Your task to perform on an android device: change the clock style Image 0: 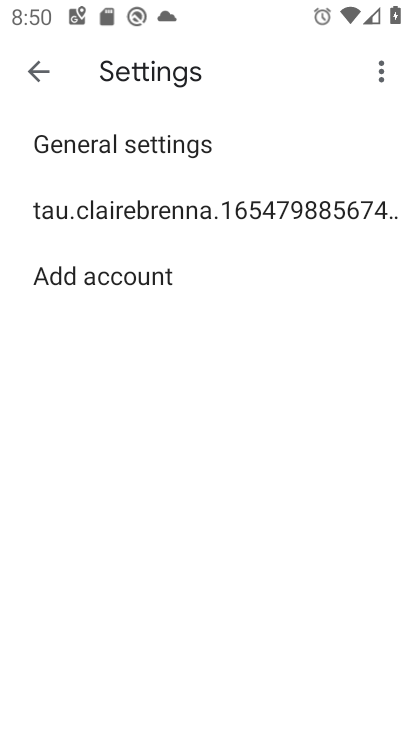
Step 0: press home button
Your task to perform on an android device: change the clock style Image 1: 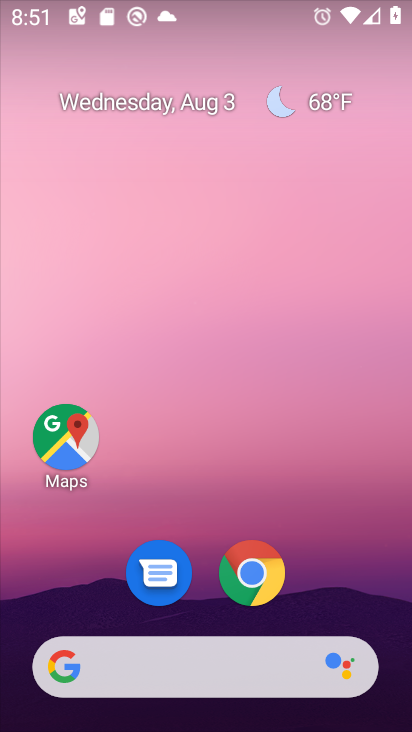
Step 1: drag from (371, 637) to (343, 21)
Your task to perform on an android device: change the clock style Image 2: 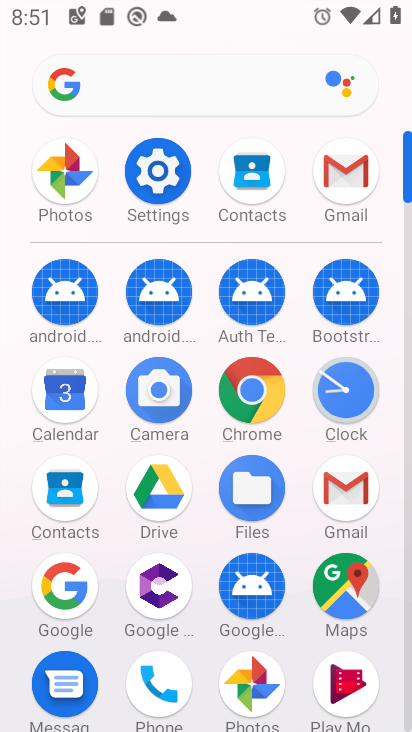
Step 2: click (344, 395)
Your task to perform on an android device: change the clock style Image 3: 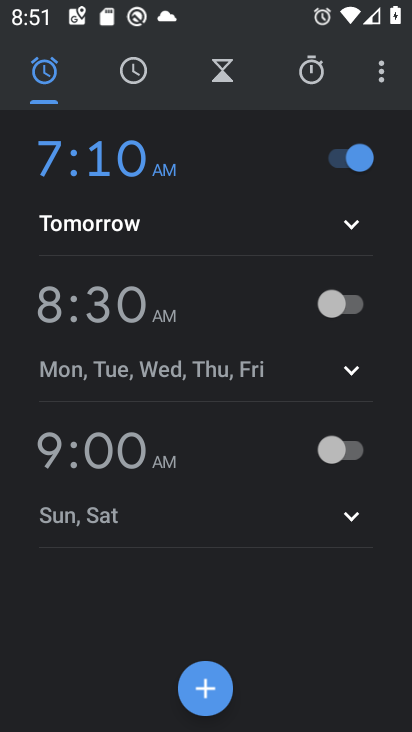
Step 3: click (387, 83)
Your task to perform on an android device: change the clock style Image 4: 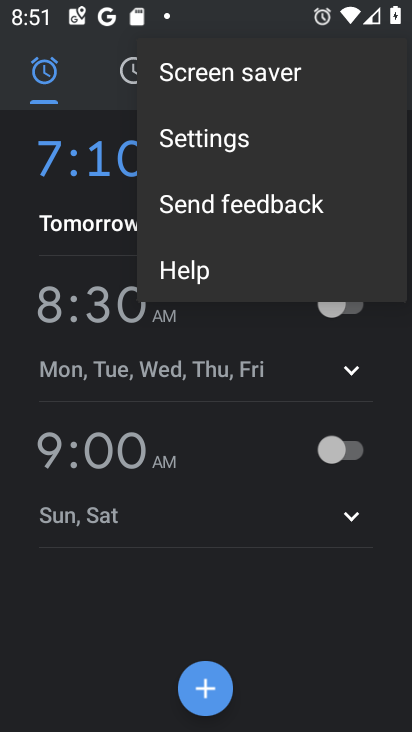
Step 4: click (191, 147)
Your task to perform on an android device: change the clock style Image 5: 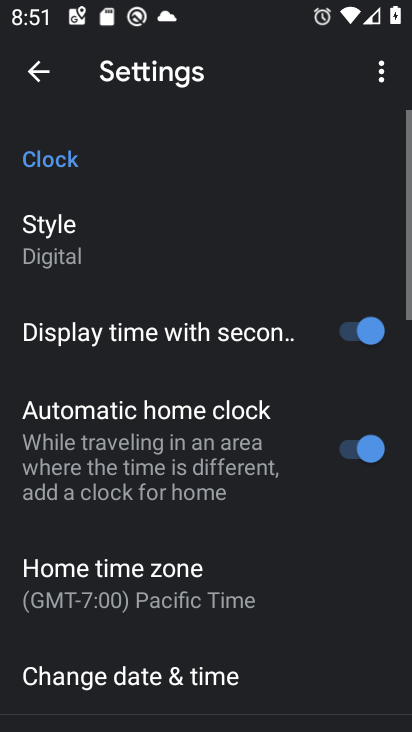
Step 5: click (76, 247)
Your task to perform on an android device: change the clock style Image 6: 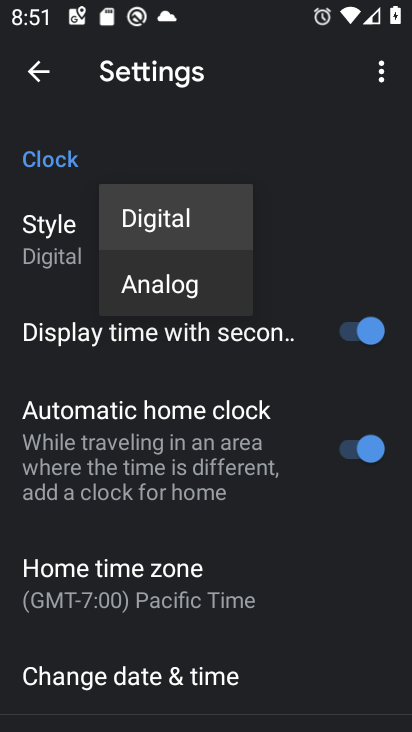
Step 6: click (143, 287)
Your task to perform on an android device: change the clock style Image 7: 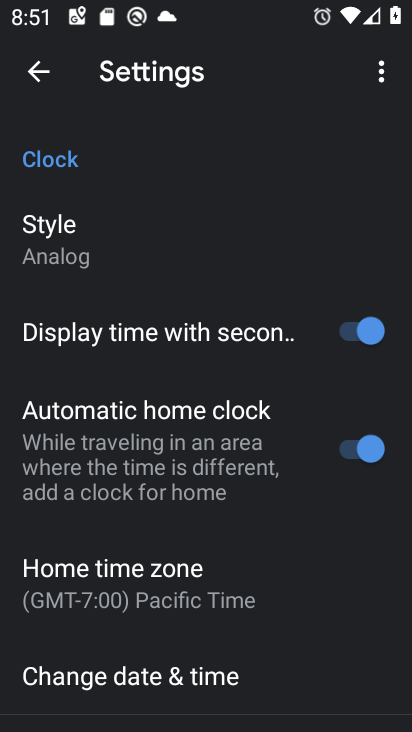
Step 7: task complete